Your task to perform on an android device: open a new tab in the chrome app Image 0: 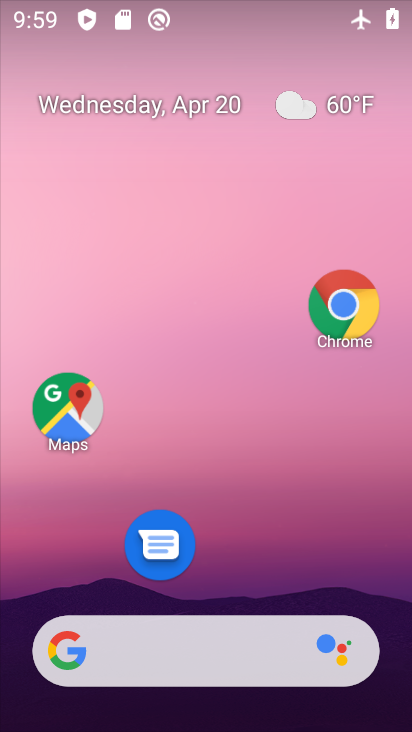
Step 0: click (336, 326)
Your task to perform on an android device: open a new tab in the chrome app Image 1: 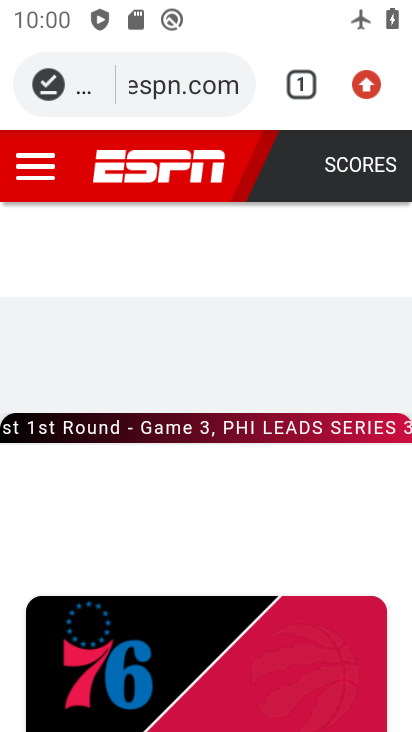
Step 1: drag from (298, 92) to (261, 309)
Your task to perform on an android device: open a new tab in the chrome app Image 2: 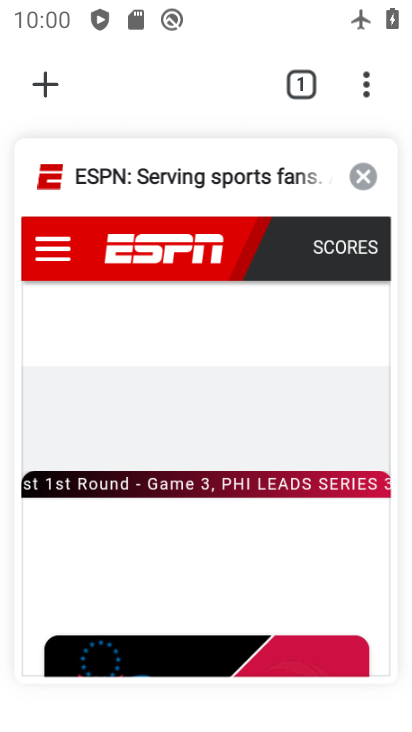
Step 2: click (44, 91)
Your task to perform on an android device: open a new tab in the chrome app Image 3: 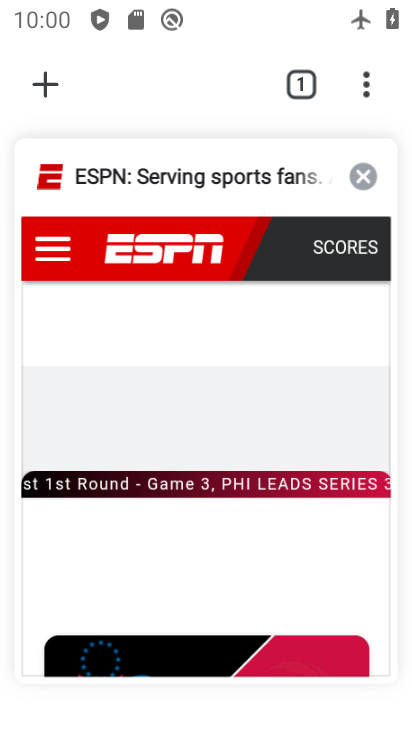
Step 3: click (55, 91)
Your task to perform on an android device: open a new tab in the chrome app Image 4: 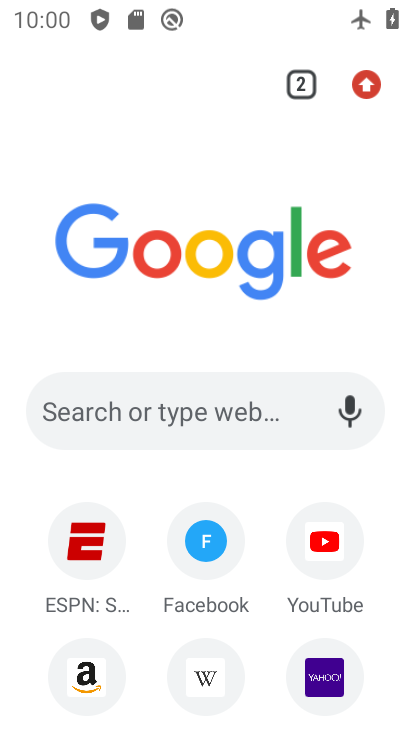
Step 4: task complete